Your task to perform on an android device: open a bookmark in the chrome app Image 0: 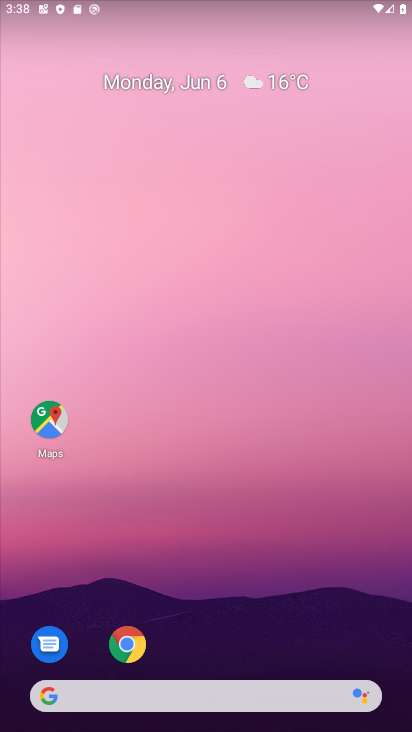
Step 0: drag from (186, 532) to (98, 2)
Your task to perform on an android device: open a bookmark in the chrome app Image 1: 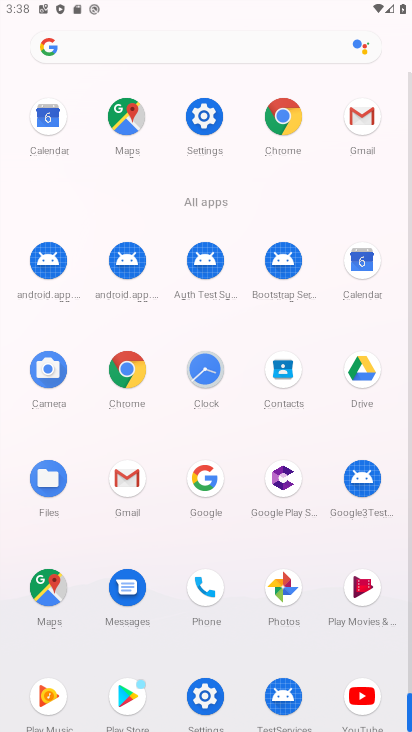
Step 1: click (121, 364)
Your task to perform on an android device: open a bookmark in the chrome app Image 2: 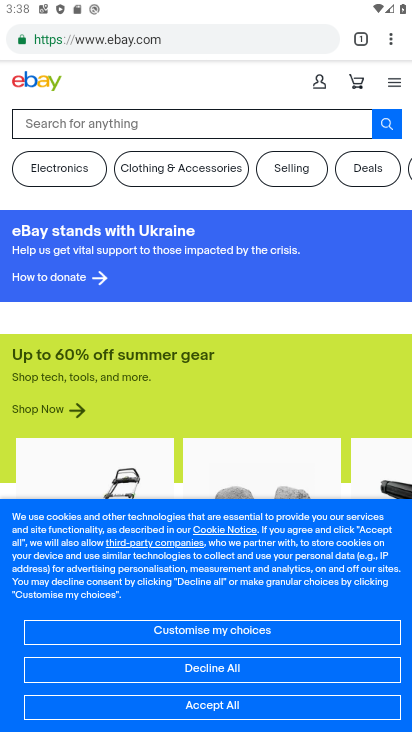
Step 2: task complete